Your task to perform on an android device: Add lenovo thinkpad to the cart on ebay.com, then select checkout. Image 0: 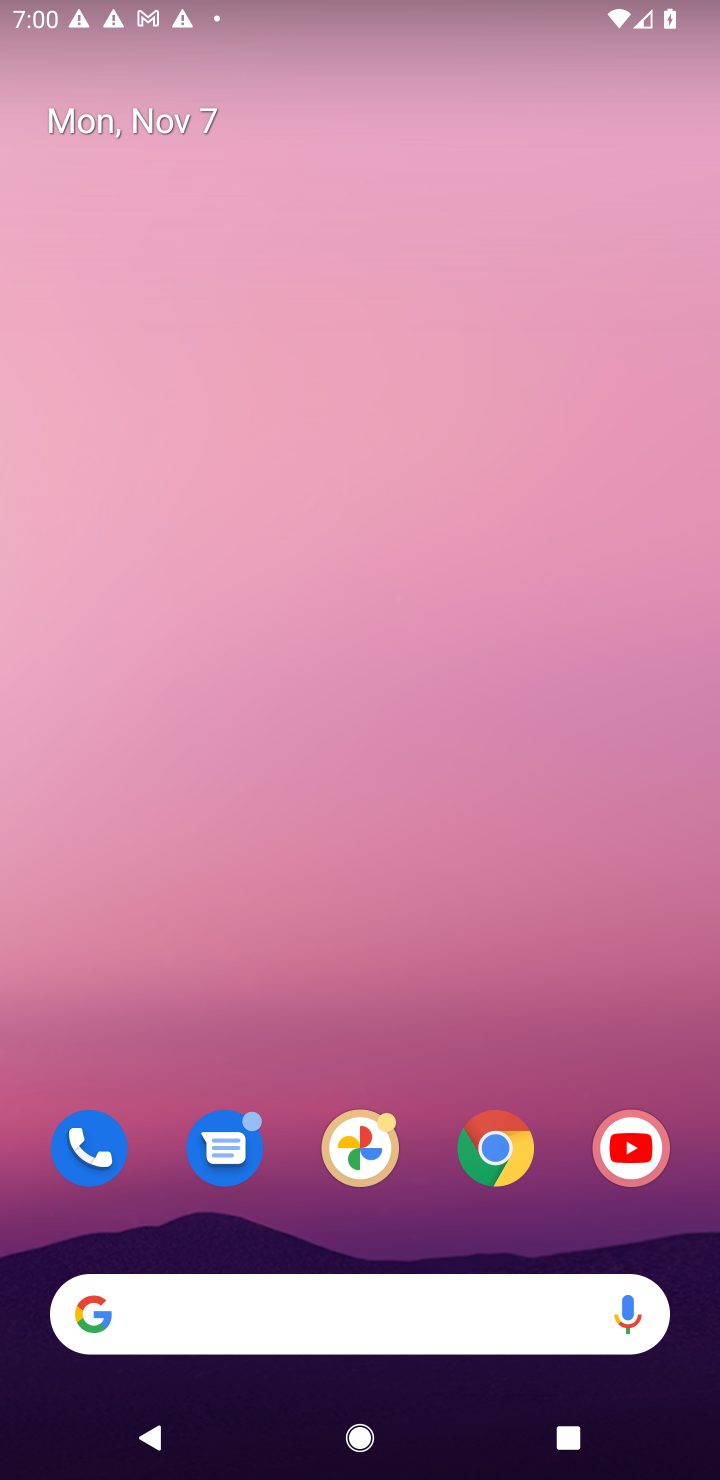
Step 0: click (497, 1148)
Your task to perform on an android device: Add lenovo thinkpad to the cart on ebay.com, then select checkout. Image 1: 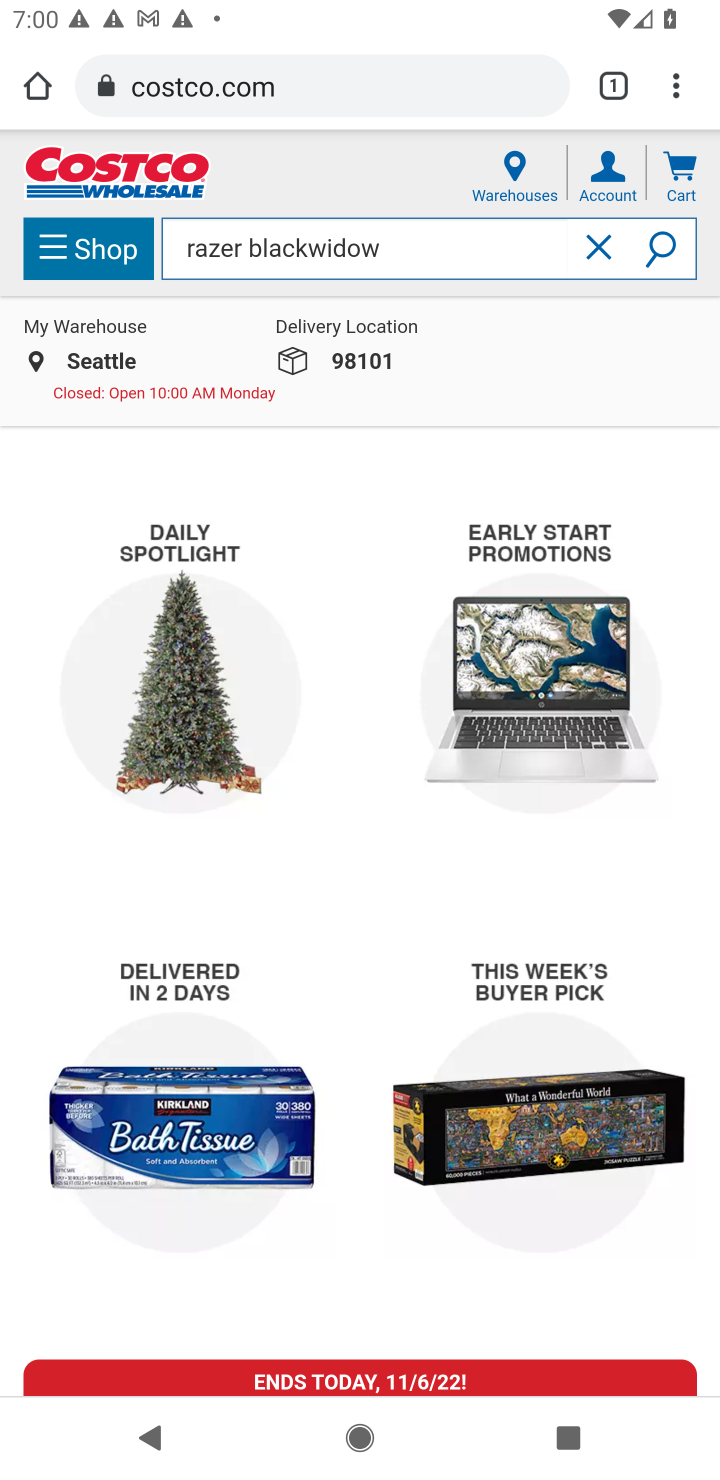
Step 1: click (397, 91)
Your task to perform on an android device: Add lenovo thinkpad to the cart on ebay.com, then select checkout. Image 2: 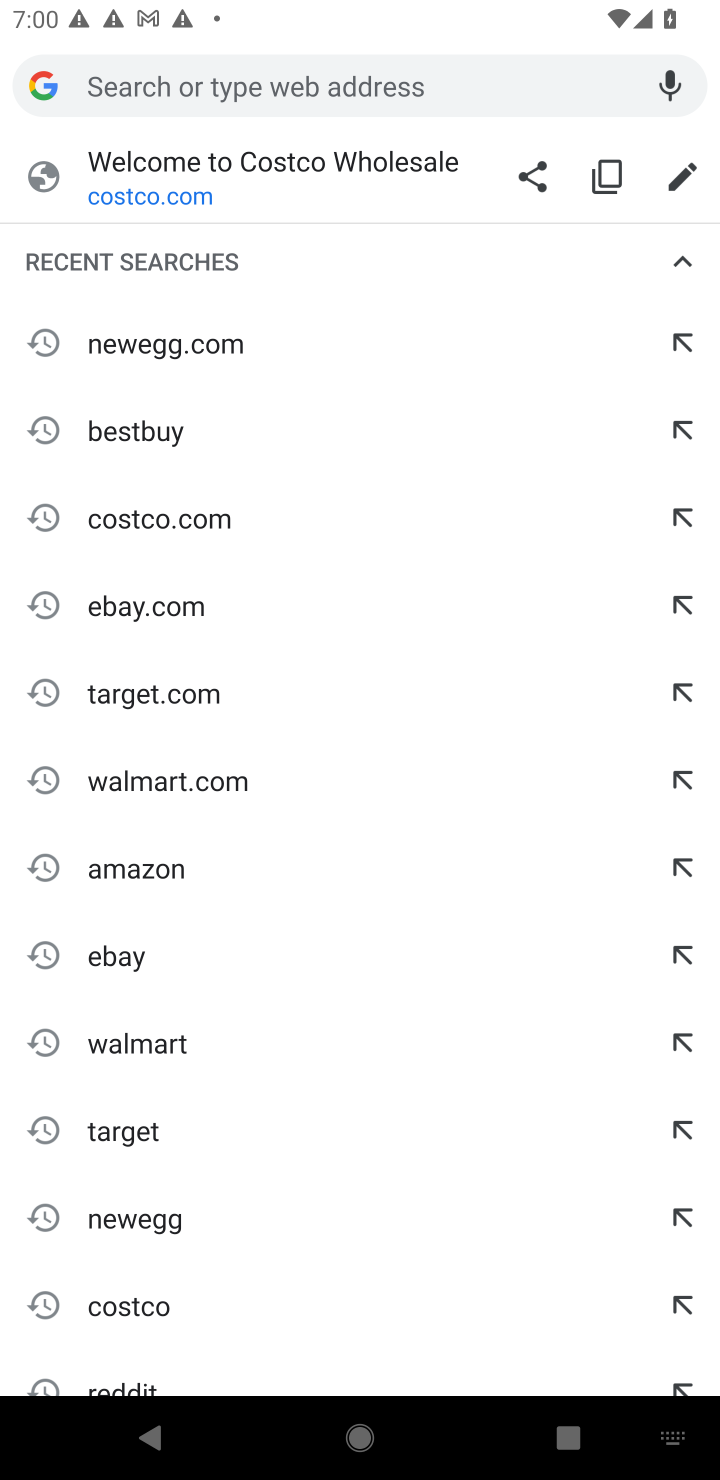
Step 2: type "ebay.com"
Your task to perform on an android device: Add lenovo thinkpad to the cart on ebay.com, then select checkout. Image 3: 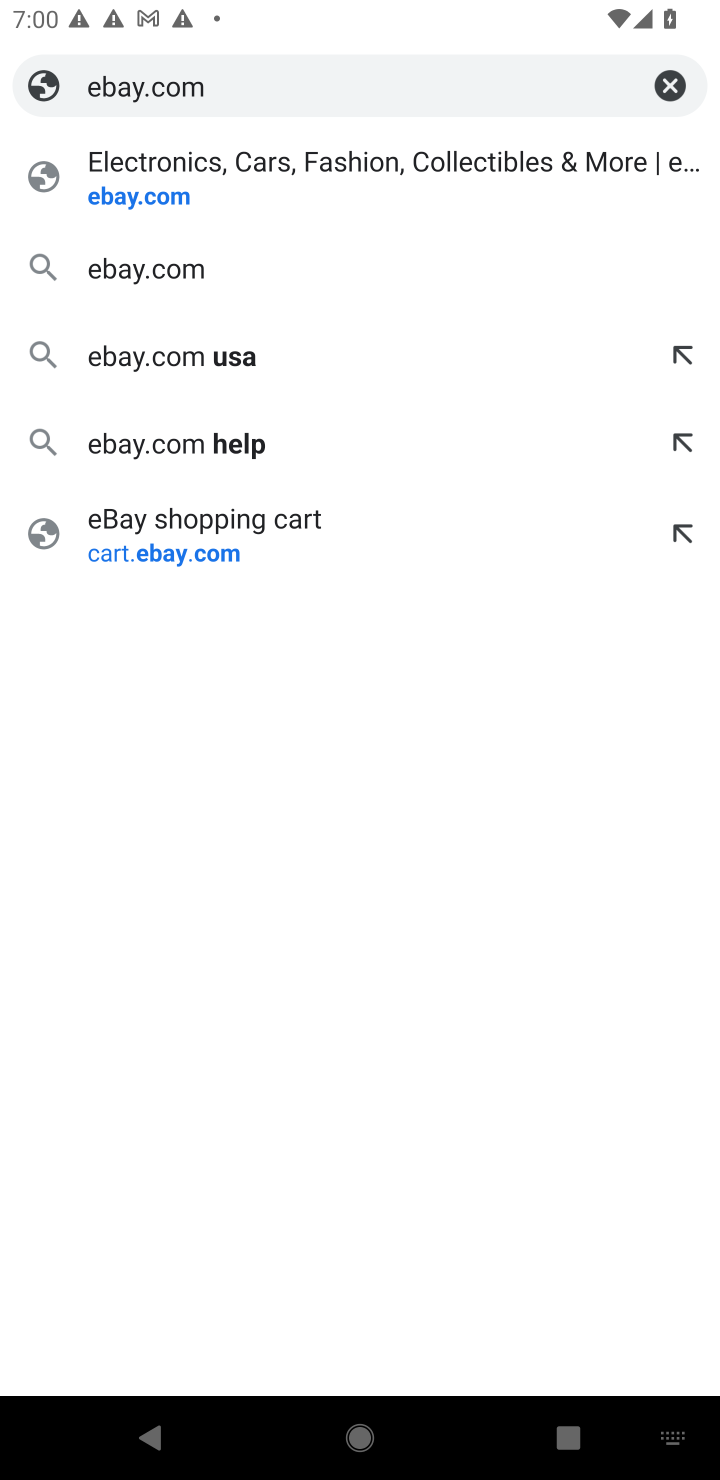
Step 3: click (175, 267)
Your task to perform on an android device: Add lenovo thinkpad to the cart on ebay.com, then select checkout. Image 4: 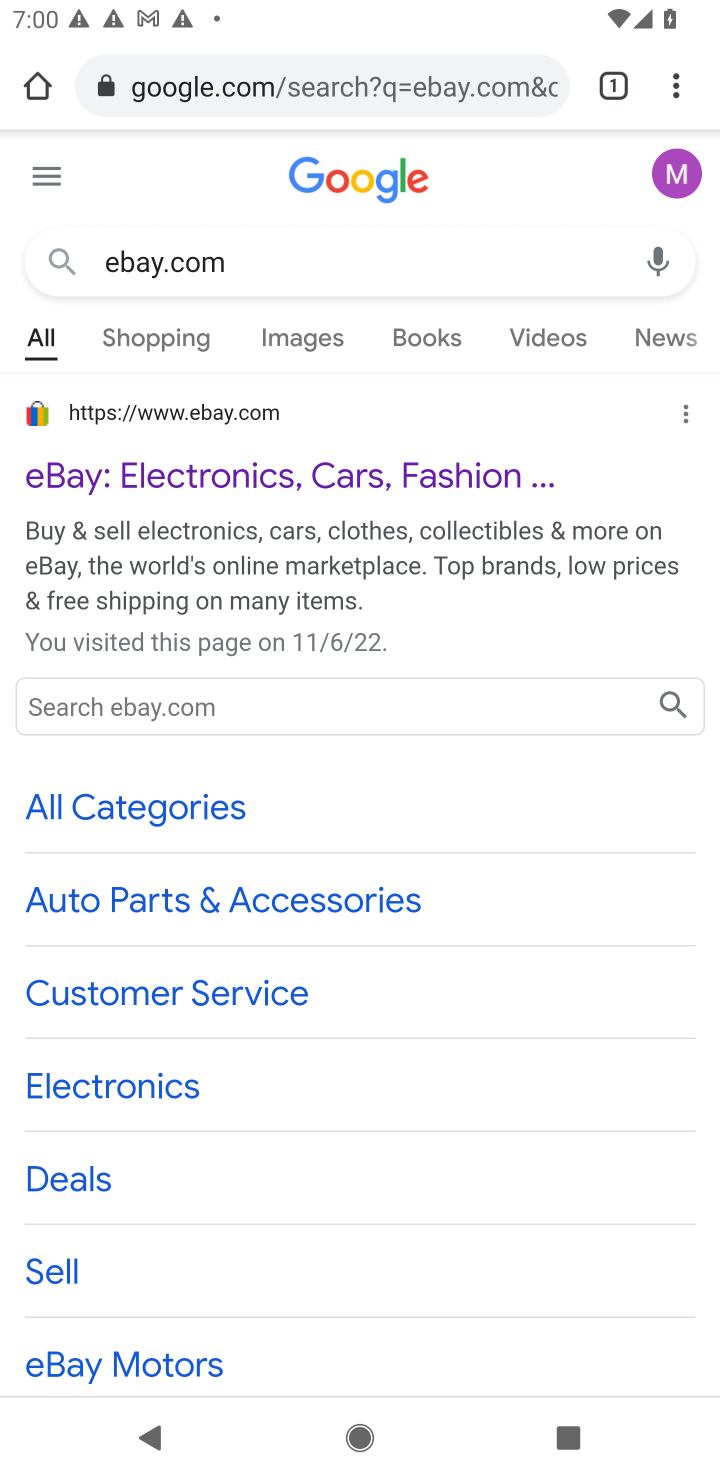
Step 4: click (224, 424)
Your task to perform on an android device: Add lenovo thinkpad to the cart on ebay.com, then select checkout. Image 5: 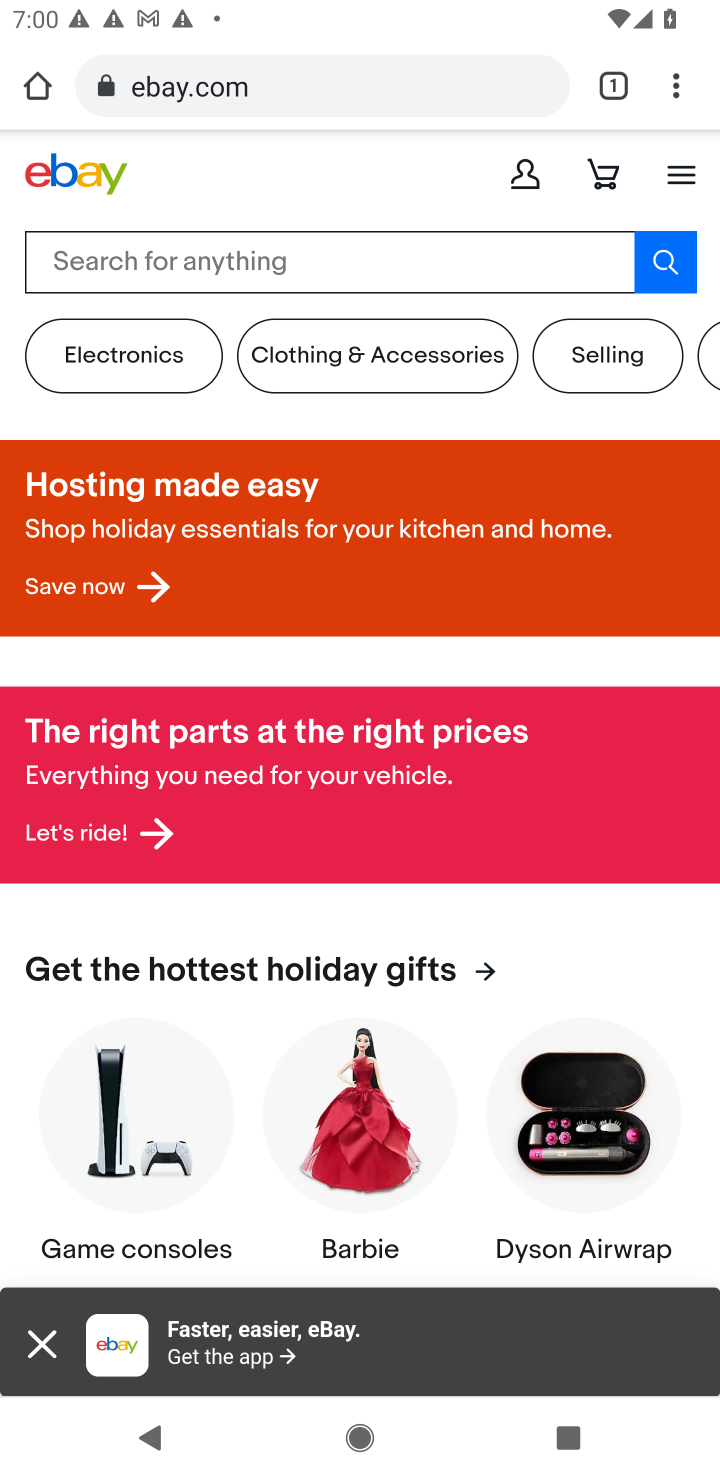
Step 5: click (483, 248)
Your task to perform on an android device: Add lenovo thinkpad to the cart on ebay.com, then select checkout. Image 6: 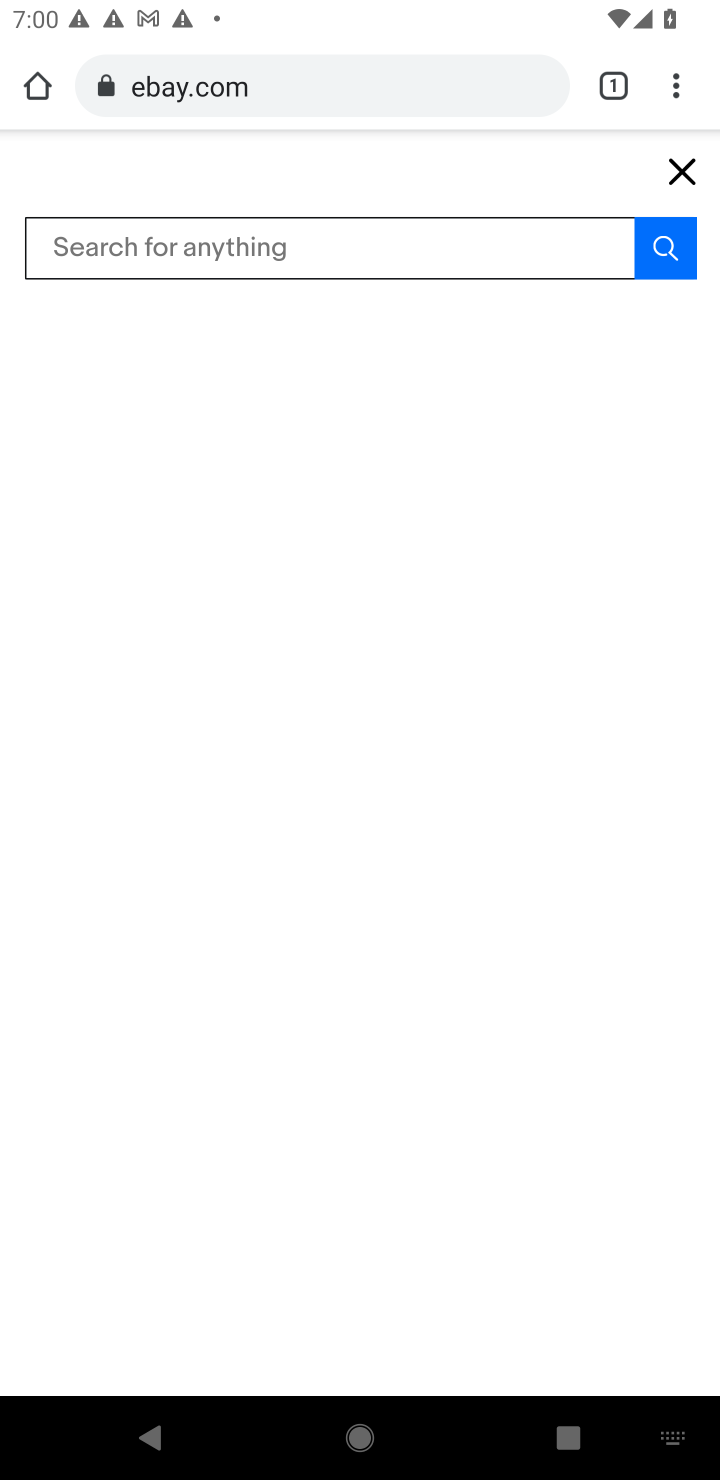
Step 6: type "lenovo thinkpad"
Your task to perform on an android device: Add lenovo thinkpad to the cart on ebay.com, then select checkout. Image 7: 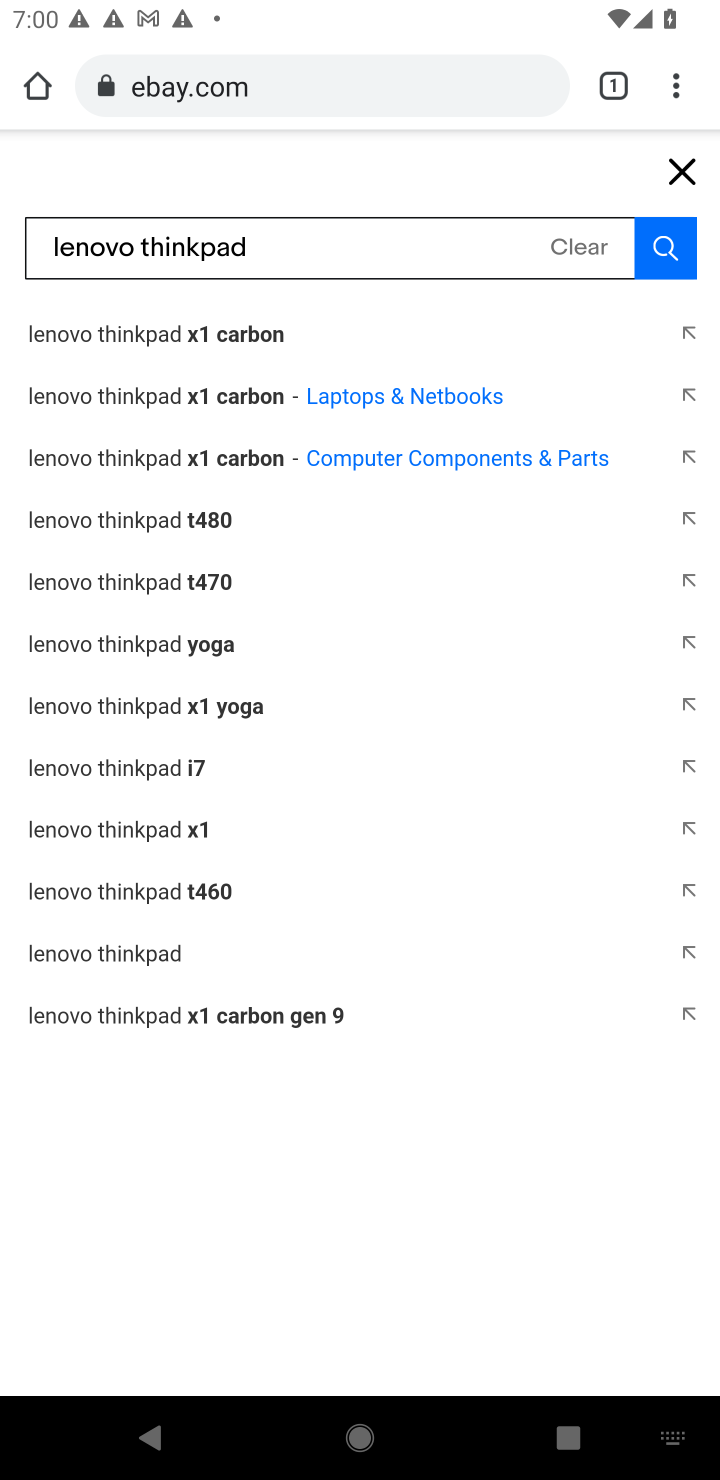
Step 7: click (96, 952)
Your task to perform on an android device: Add lenovo thinkpad to the cart on ebay.com, then select checkout. Image 8: 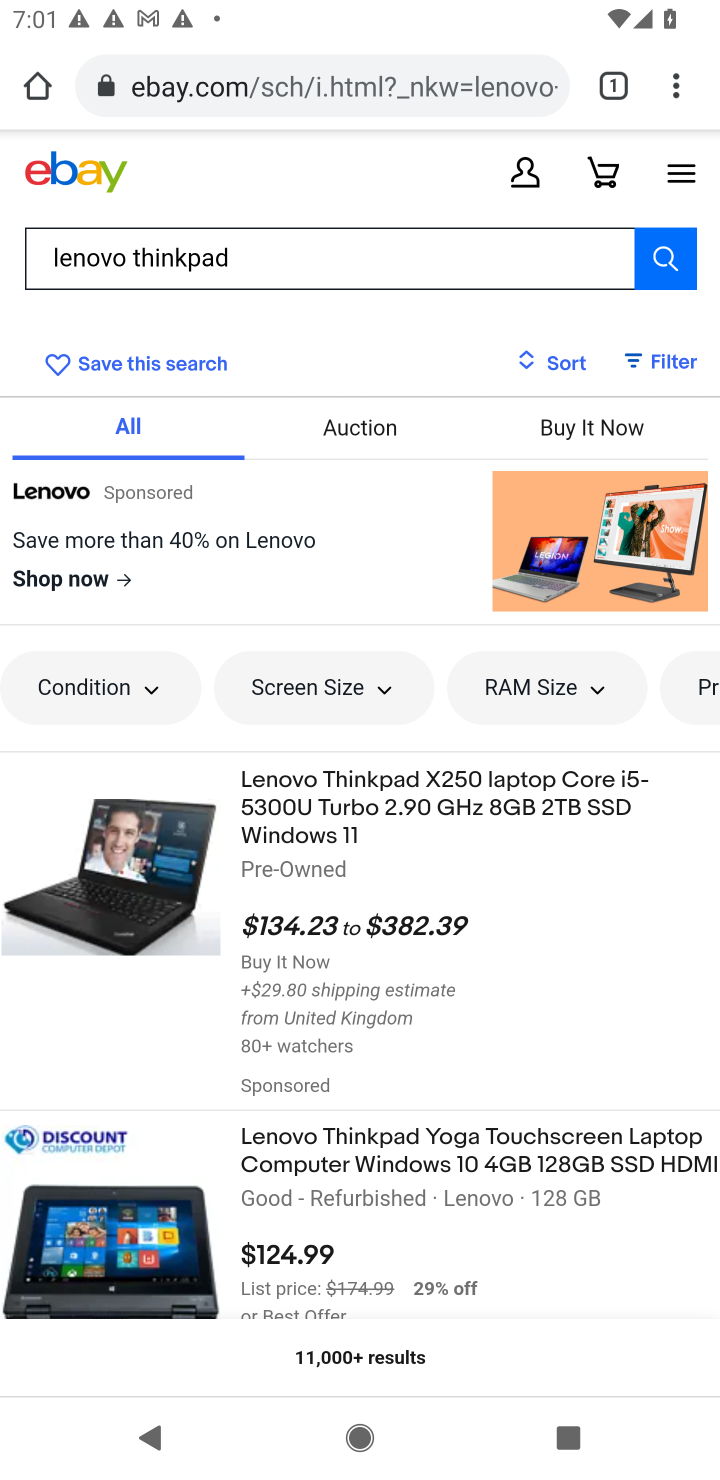
Step 8: drag from (524, 1281) to (572, 607)
Your task to perform on an android device: Add lenovo thinkpad to the cart on ebay.com, then select checkout. Image 9: 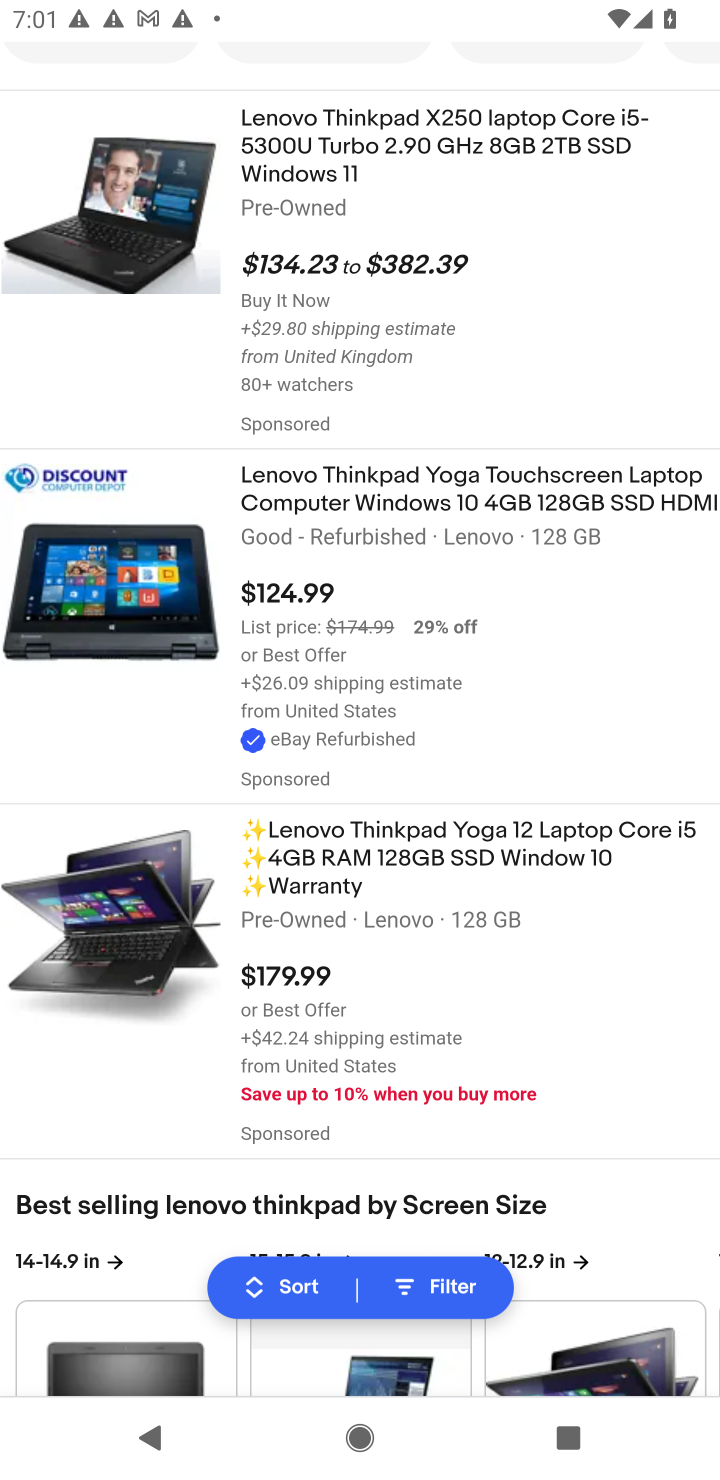
Step 9: drag from (475, 1056) to (488, 578)
Your task to perform on an android device: Add lenovo thinkpad to the cart on ebay.com, then select checkout. Image 10: 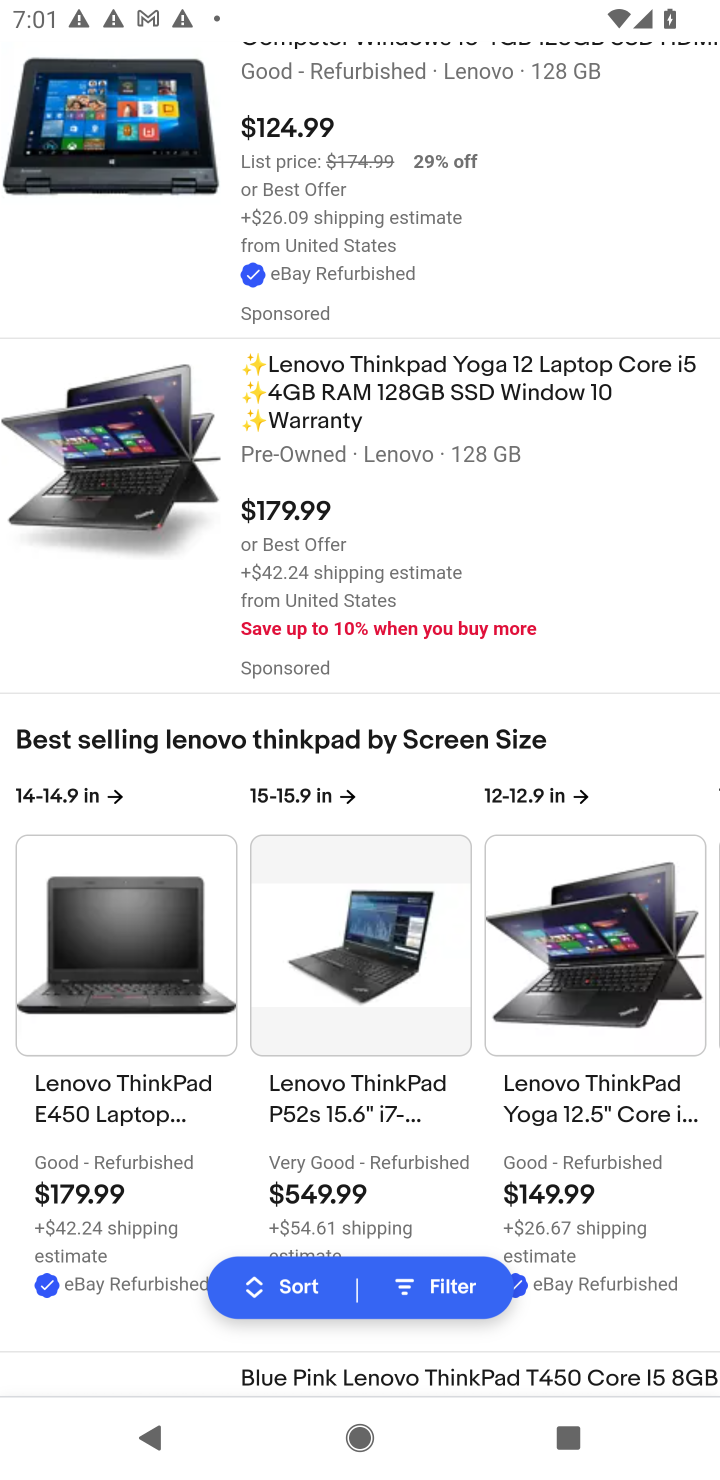
Step 10: drag from (586, 665) to (713, 836)
Your task to perform on an android device: Add lenovo thinkpad to the cart on ebay.com, then select checkout. Image 11: 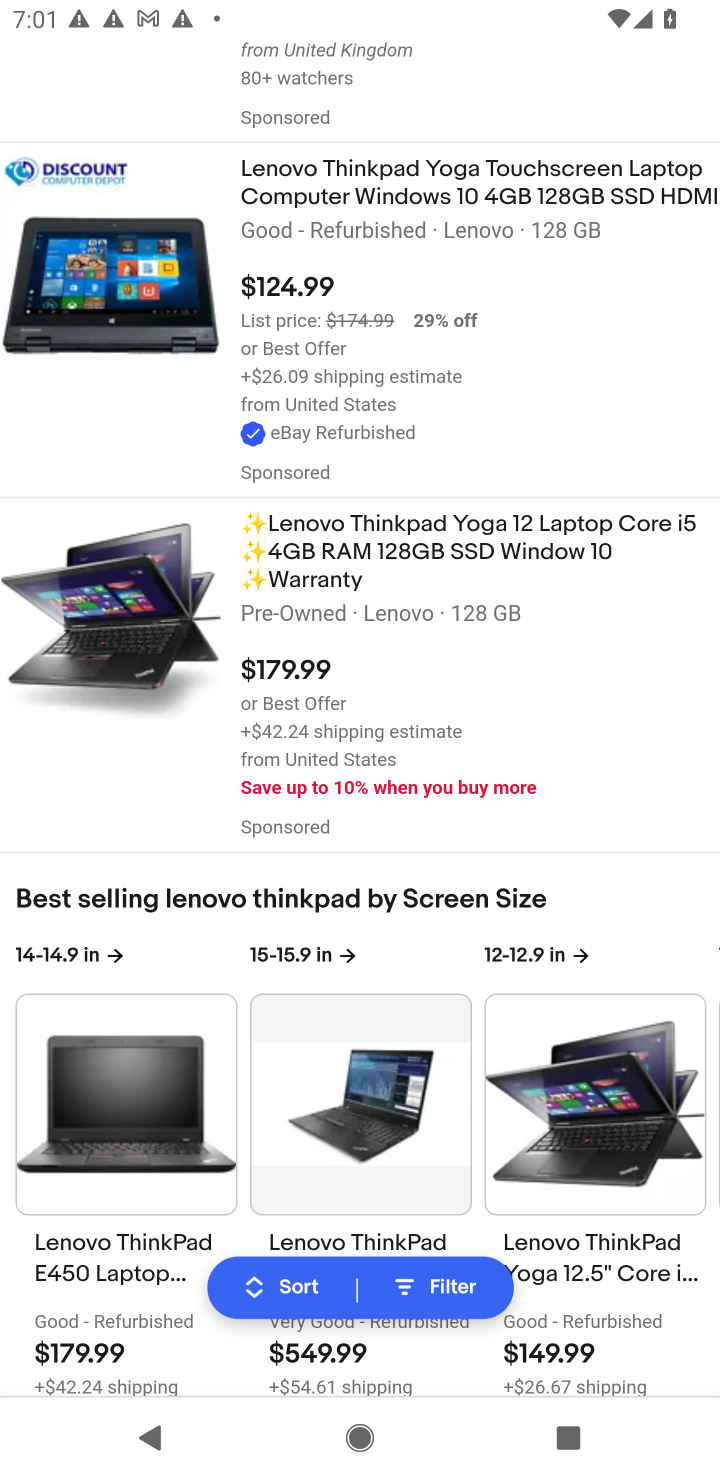
Step 11: drag from (458, 891) to (463, 957)
Your task to perform on an android device: Add lenovo thinkpad to the cart on ebay.com, then select checkout. Image 12: 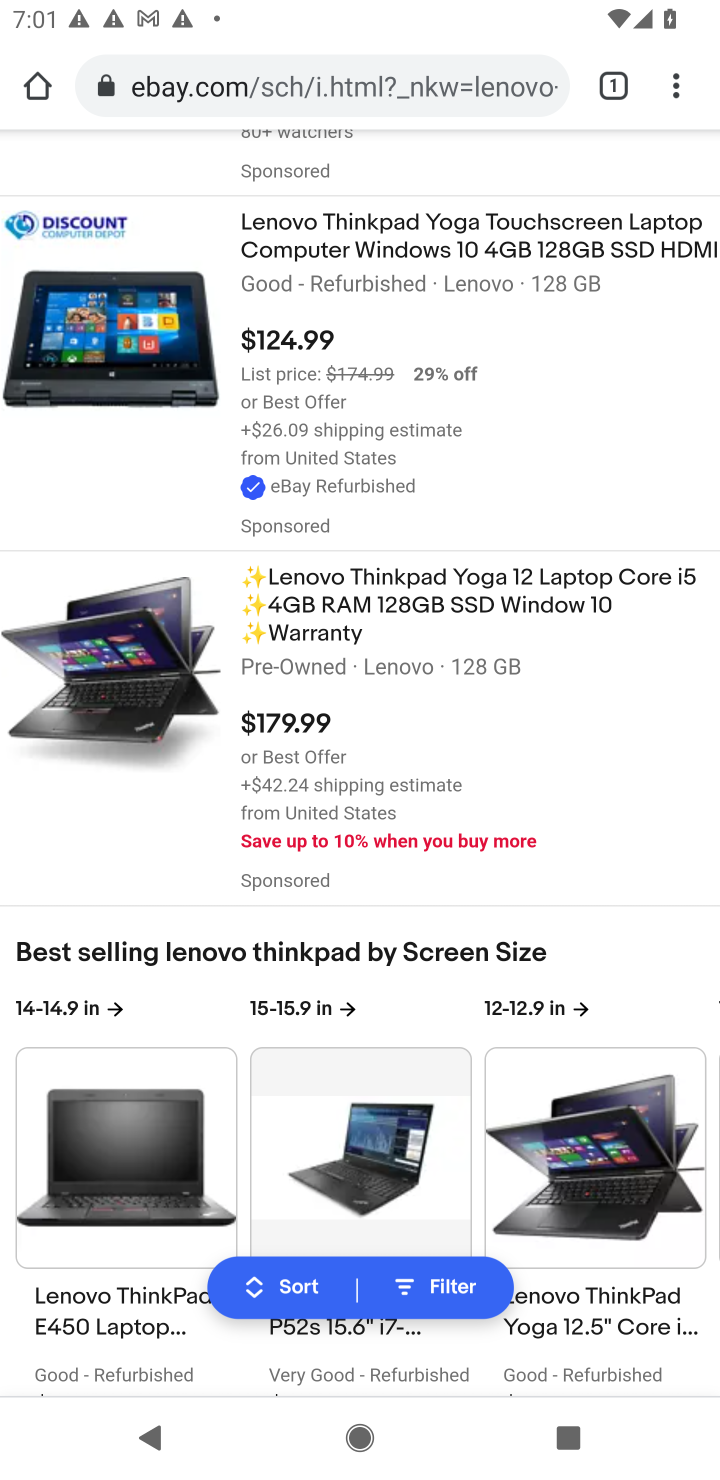
Step 12: click (123, 362)
Your task to perform on an android device: Add lenovo thinkpad to the cart on ebay.com, then select checkout. Image 13: 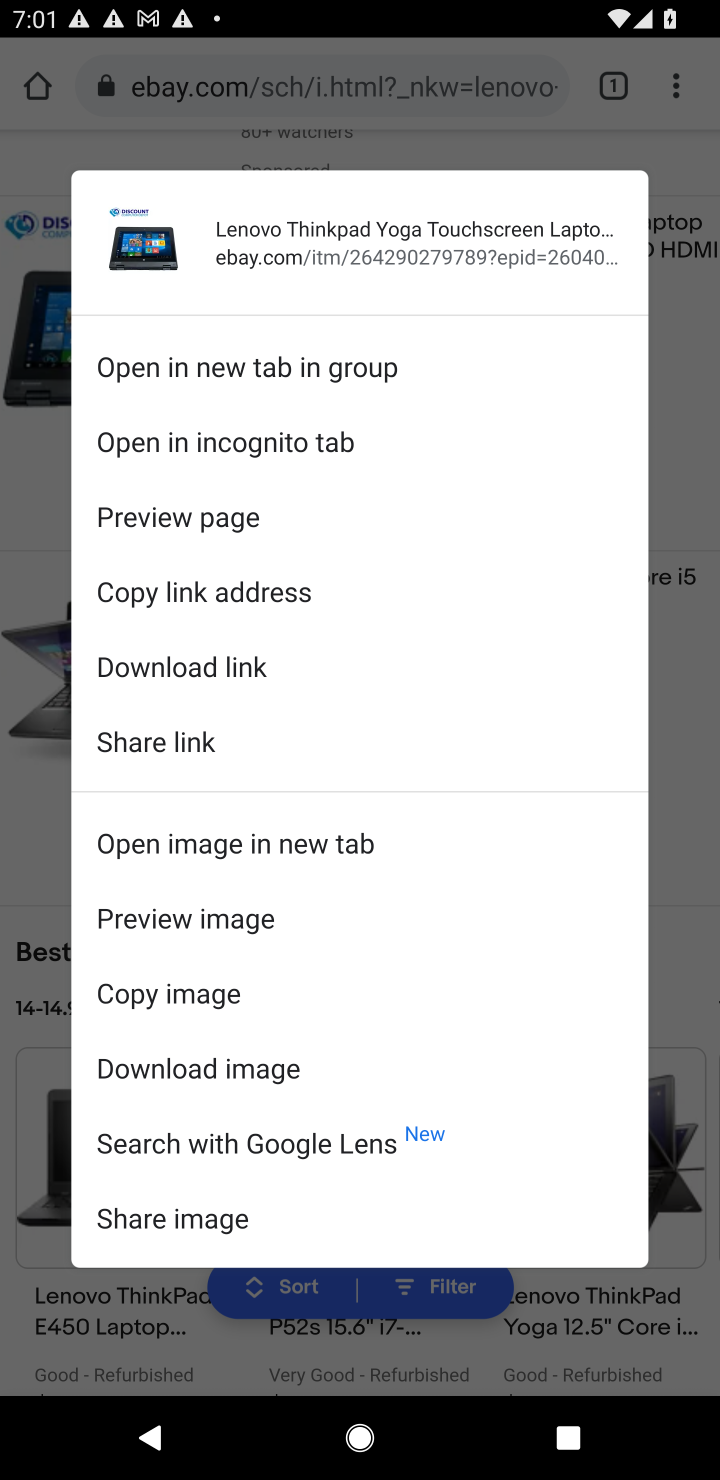
Step 13: click (693, 957)
Your task to perform on an android device: Add lenovo thinkpad to the cart on ebay.com, then select checkout. Image 14: 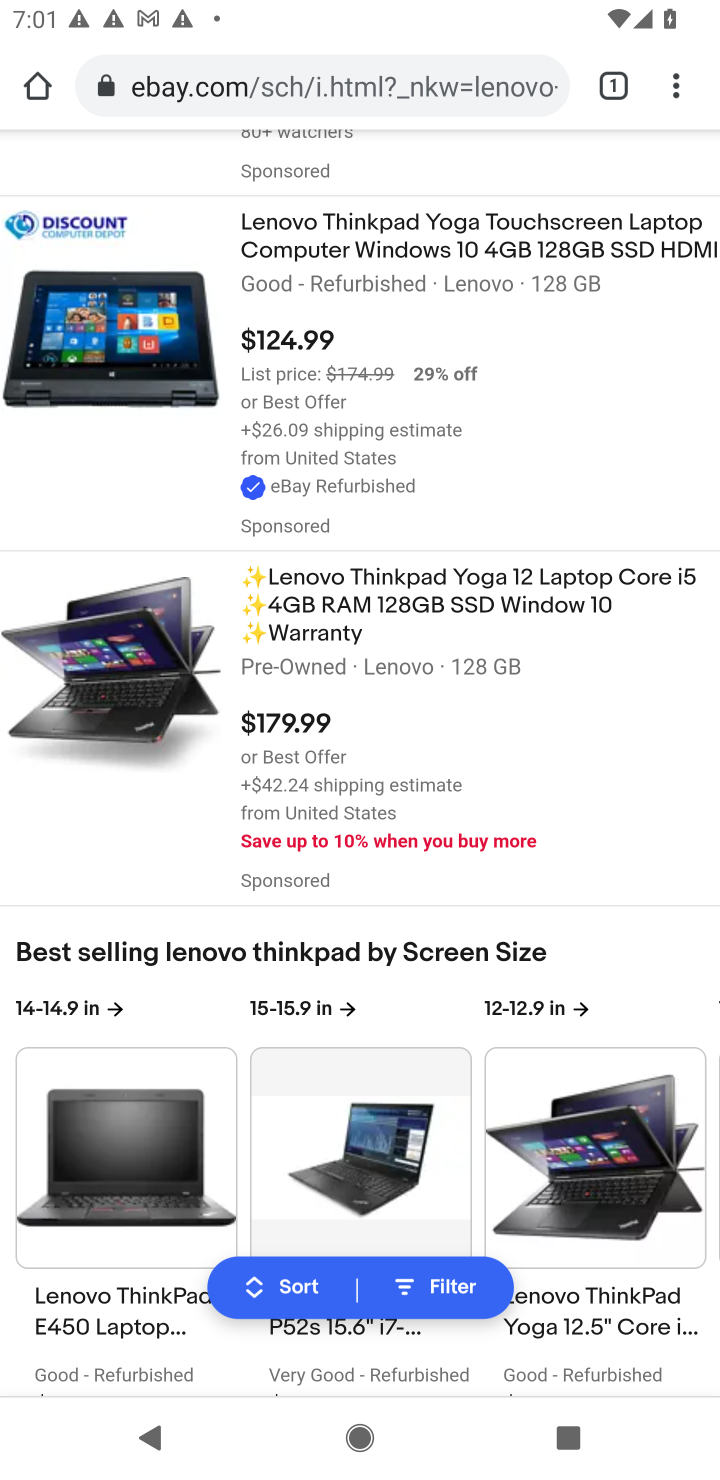
Step 14: click (68, 364)
Your task to perform on an android device: Add lenovo thinkpad to the cart on ebay.com, then select checkout. Image 15: 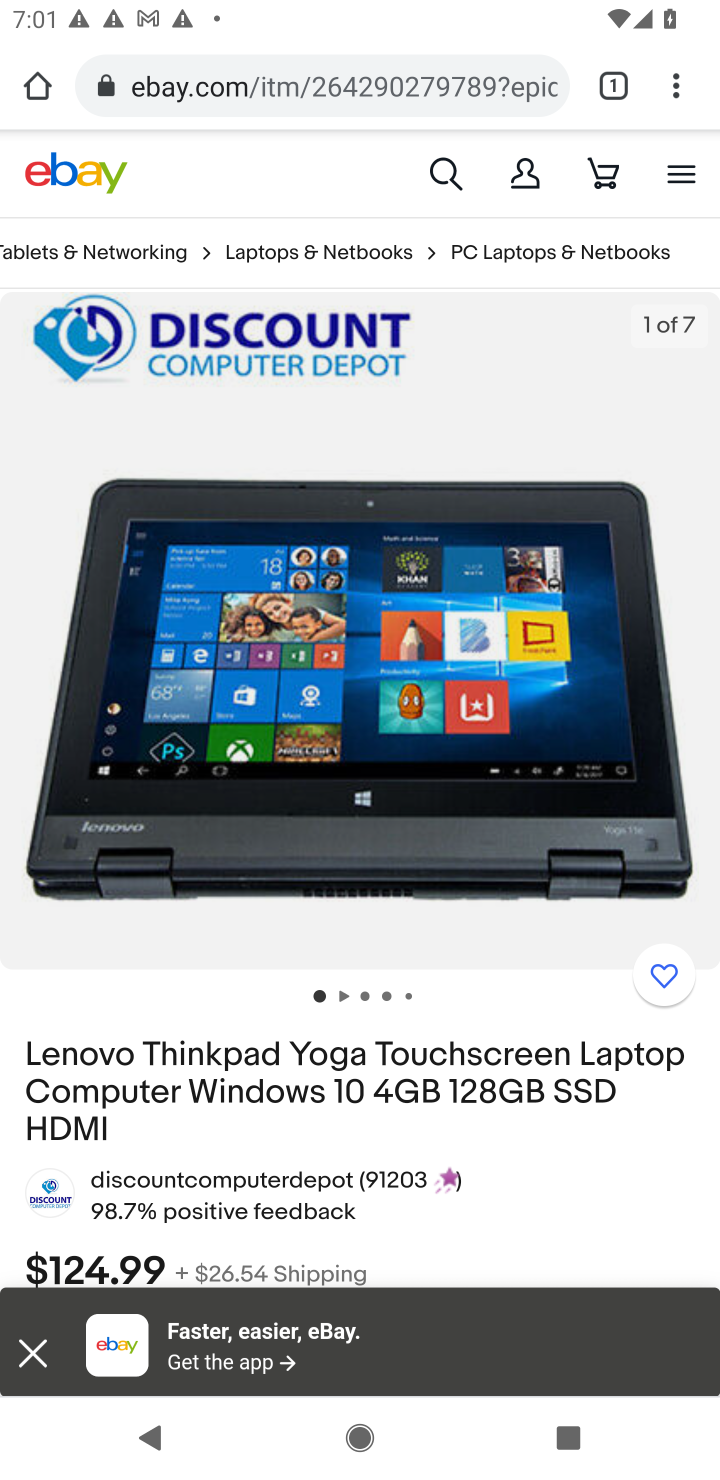
Step 15: drag from (444, 878) to (395, 555)
Your task to perform on an android device: Add lenovo thinkpad to the cart on ebay.com, then select checkout. Image 16: 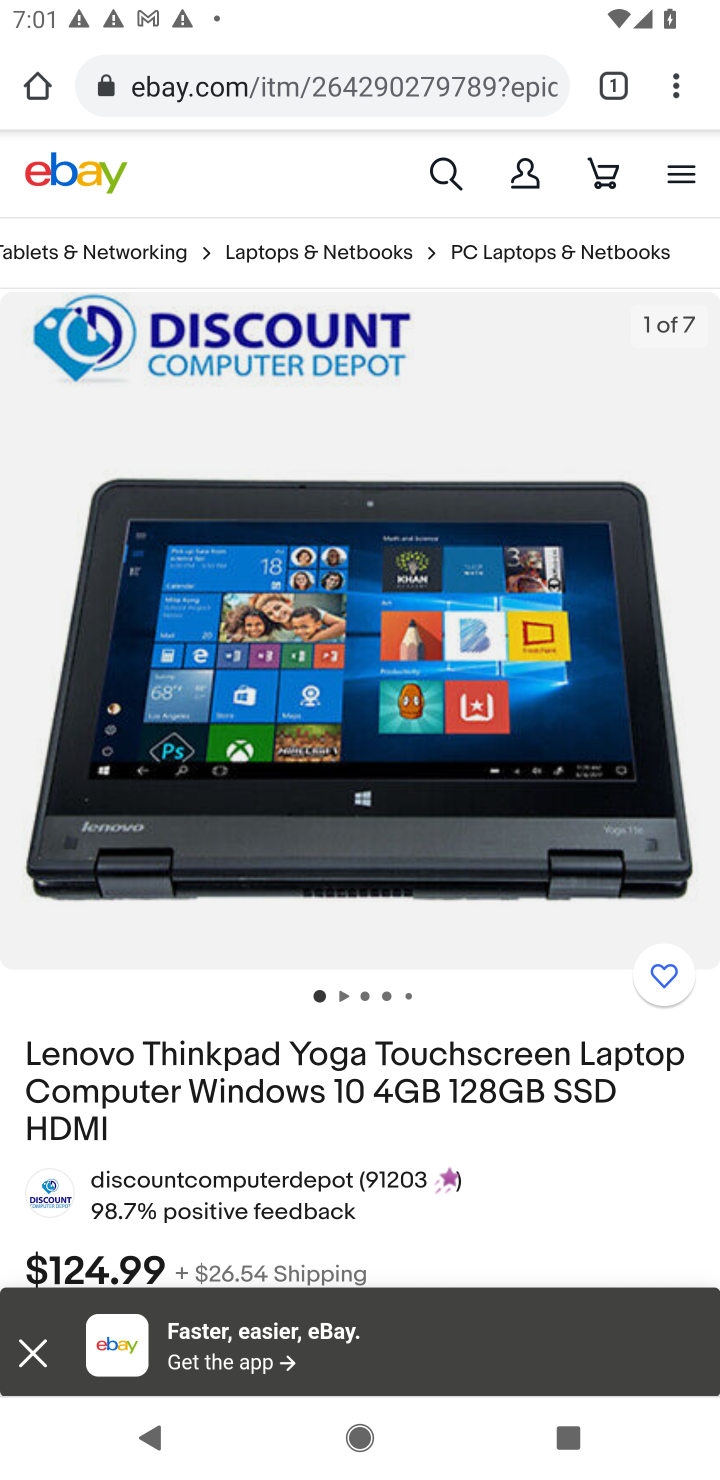
Step 16: drag from (494, 1169) to (495, 485)
Your task to perform on an android device: Add lenovo thinkpad to the cart on ebay.com, then select checkout. Image 17: 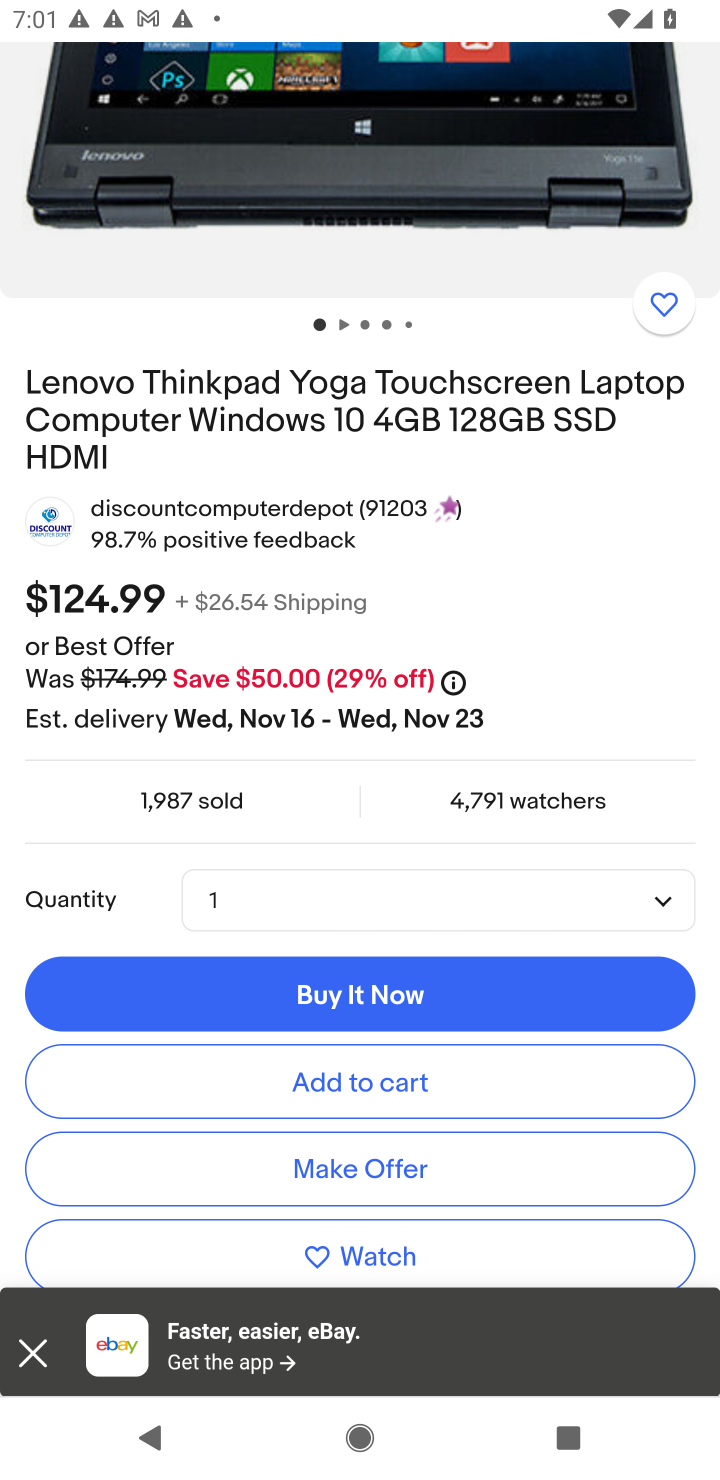
Step 17: click (411, 1078)
Your task to perform on an android device: Add lenovo thinkpad to the cart on ebay.com, then select checkout. Image 18: 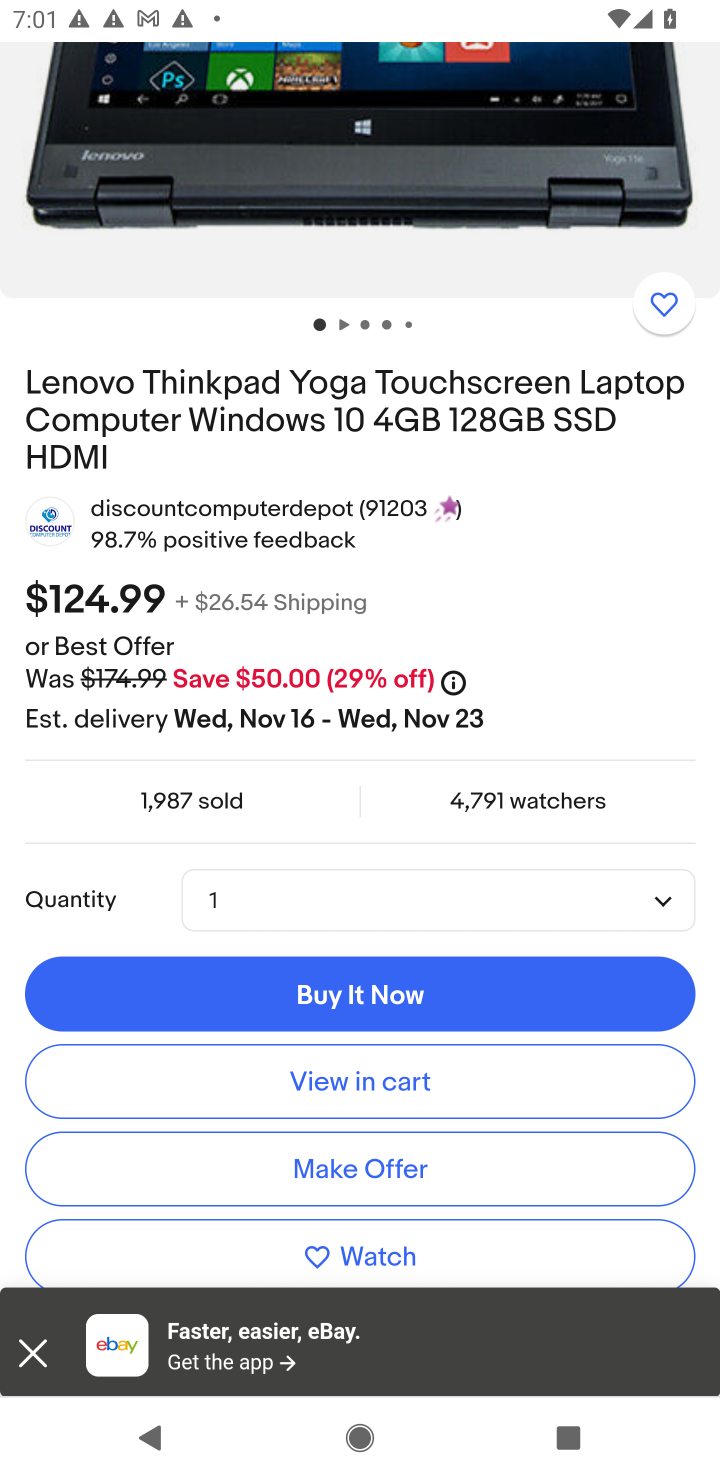
Step 18: click (375, 1092)
Your task to perform on an android device: Add lenovo thinkpad to the cart on ebay.com, then select checkout. Image 19: 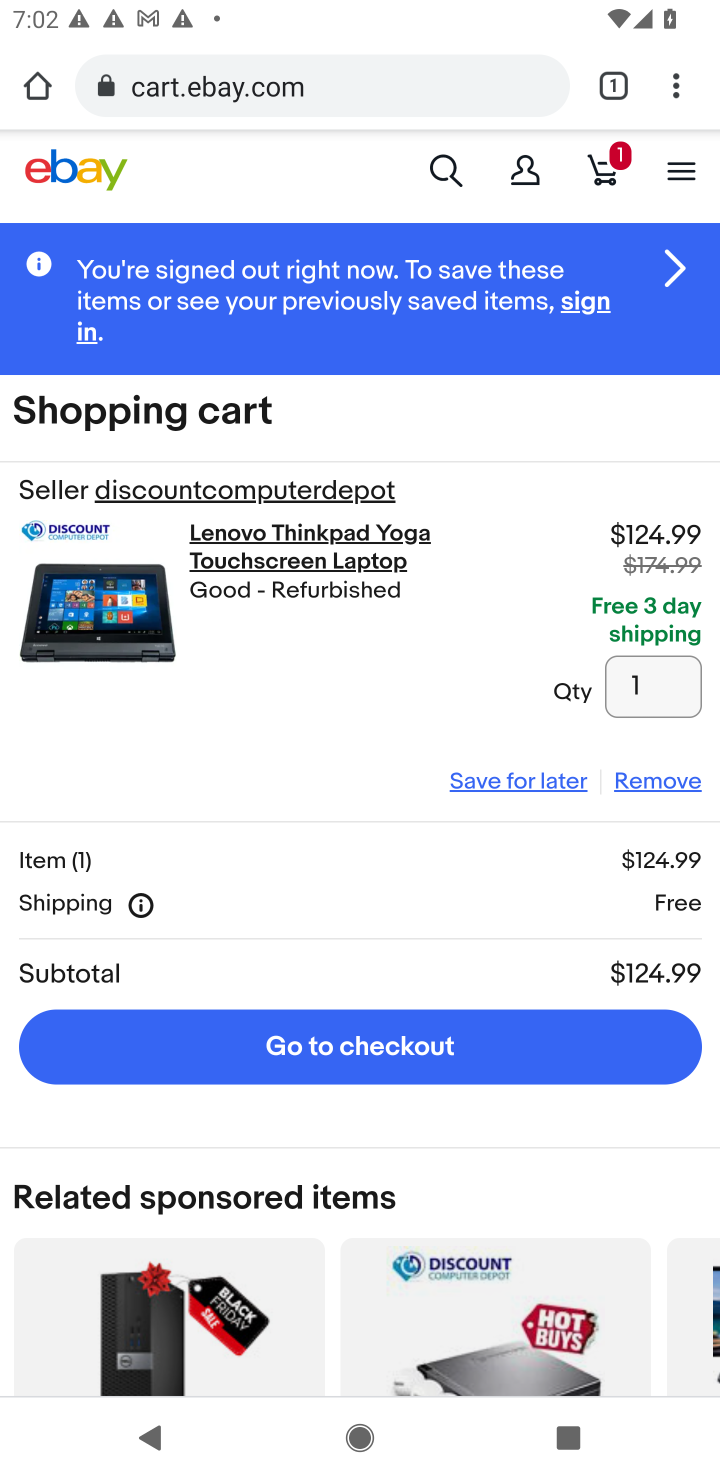
Step 19: click (426, 1031)
Your task to perform on an android device: Add lenovo thinkpad to the cart on ebay.com, then select checkout. Image 20: 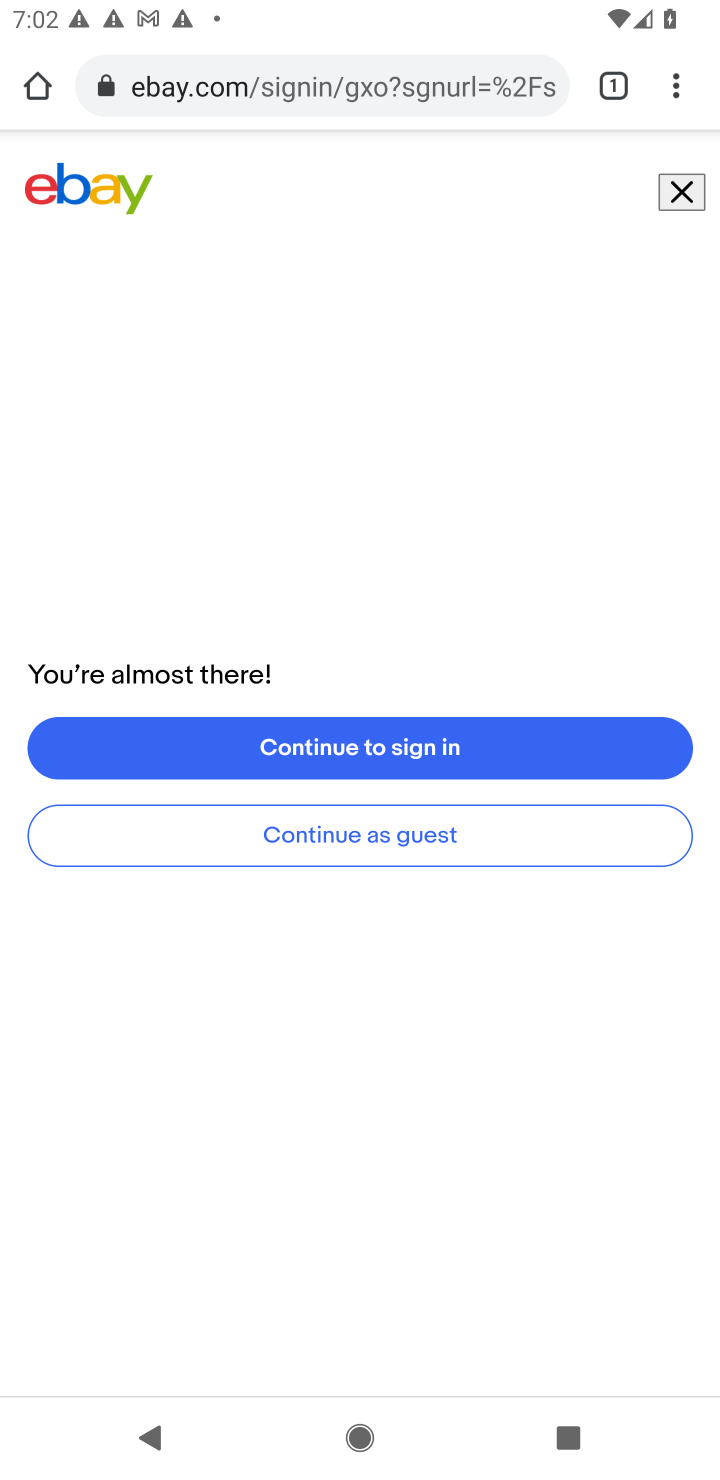
Step 20: task complete